Your task to perform on an android device: turn off javascript in the chrome app Image 0: 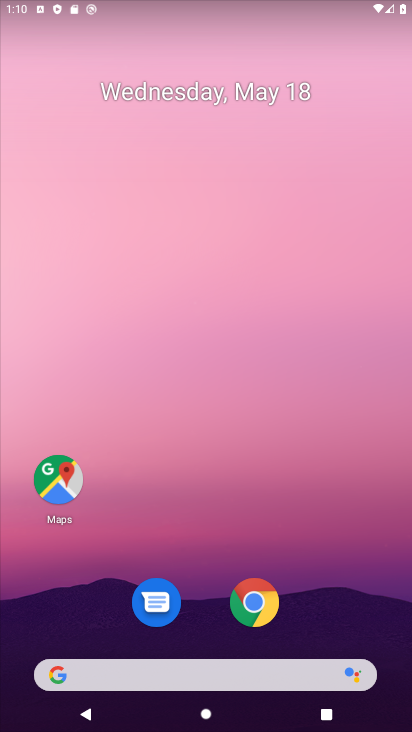
Step 0: click (240, 606)
Your task to perform on an android device: turn off javascript in the chrome app Image 1: 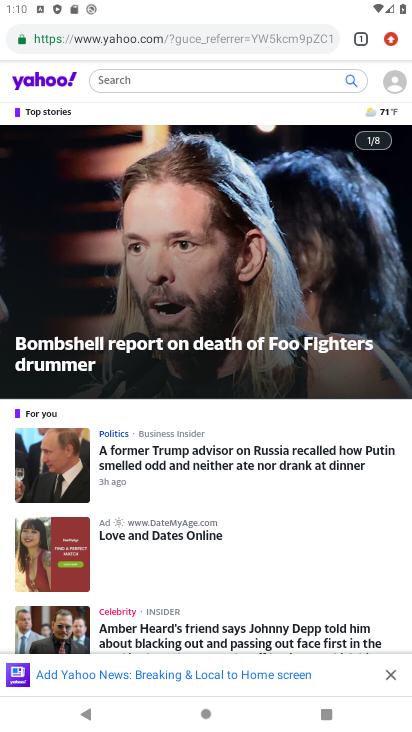
Step 1: click (389, 37)
Your task to perform on an android device: turn off javascript in the chrome app Image 2: 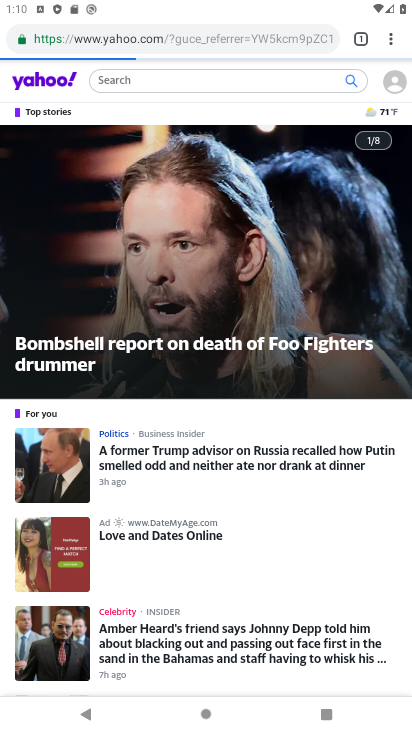
Step 2: click (393, 31)
Your task to perform on an android device: turn off javascript in the chrome app Image 3: 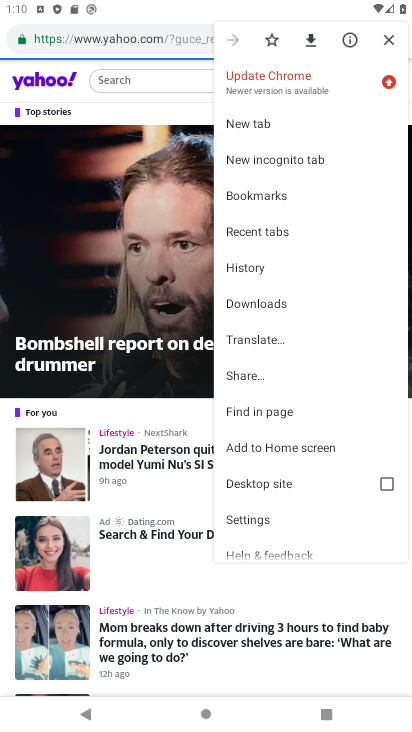
Step 3: click (267, 515)
Your task to perform on an android device: turn off javascript in the chrome app Image 4: 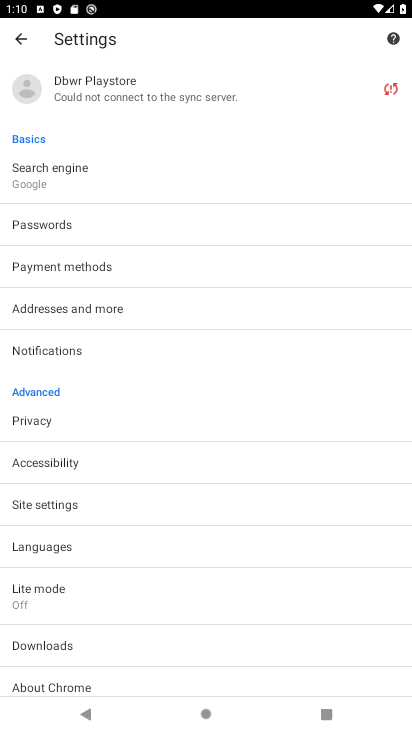
Step 4: click (73, 501)
Your task to perform on an android device: turn off javascript in the chrome app Image 5: 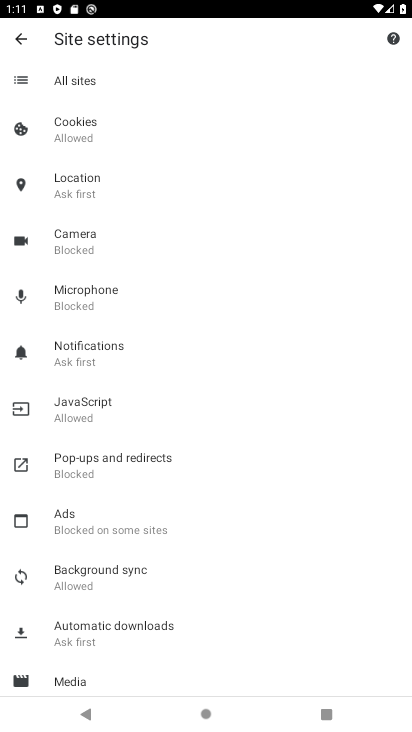
Step 5: click (100, 410)
Your task to perform on an android device: turn off javascript in the chrome app Image 6: 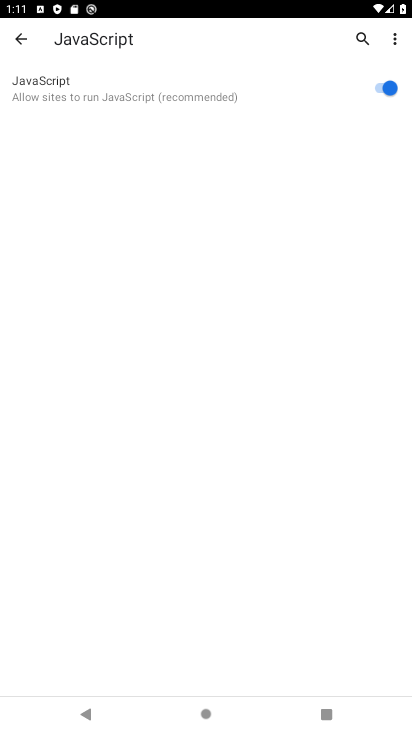
Step 6: click (383, 87)
Your task to perform on an android device: turn off javascript in the chrome app Image 7: 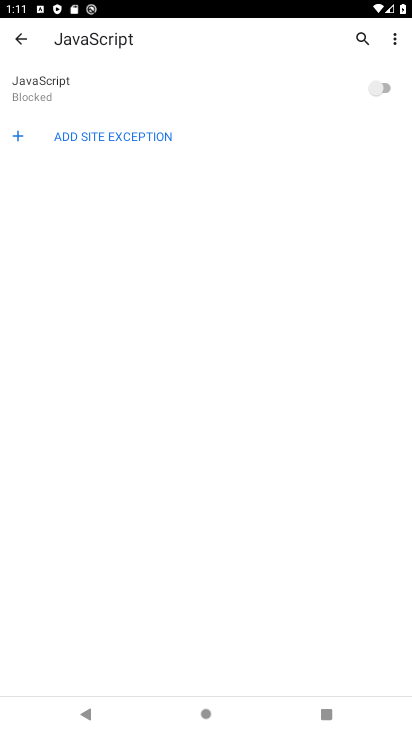
Step 7: task complete